Your task to perform on an android device: Install the Spotify app Image 0: 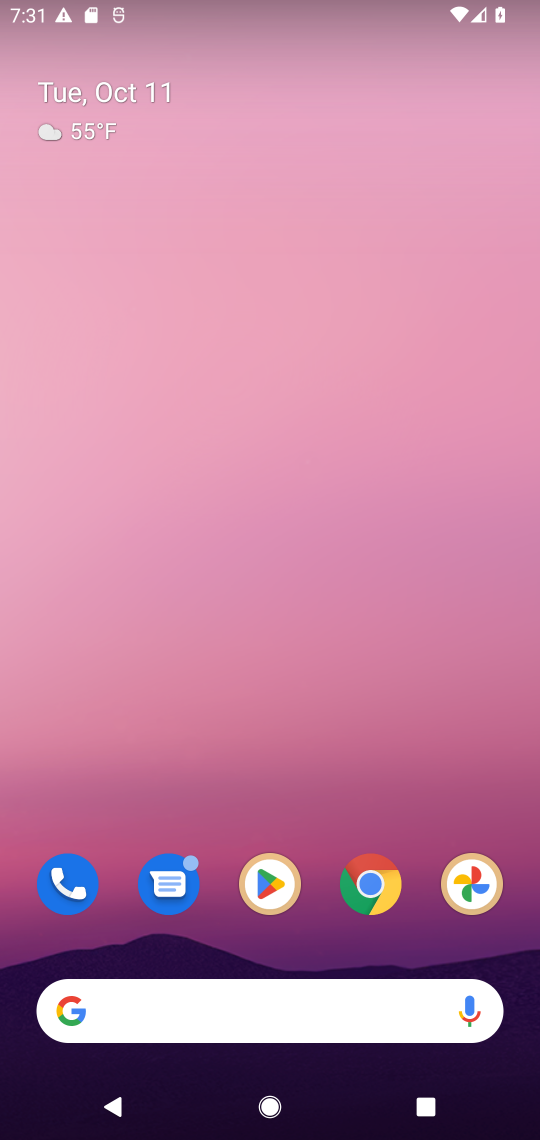
Step 0: drag from (298, 979) to (209, 212)
Your task to perform on an android device: Install the Spotify app Image 1: 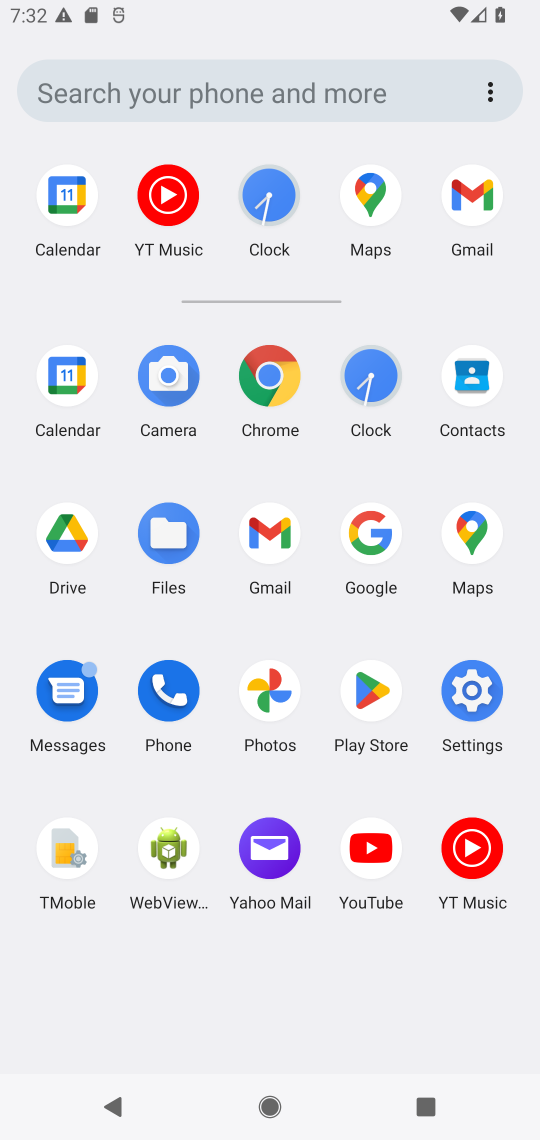
Step 1: click (376, 695)
Your task to perform on an android device: Install the Spotify app Image 2: 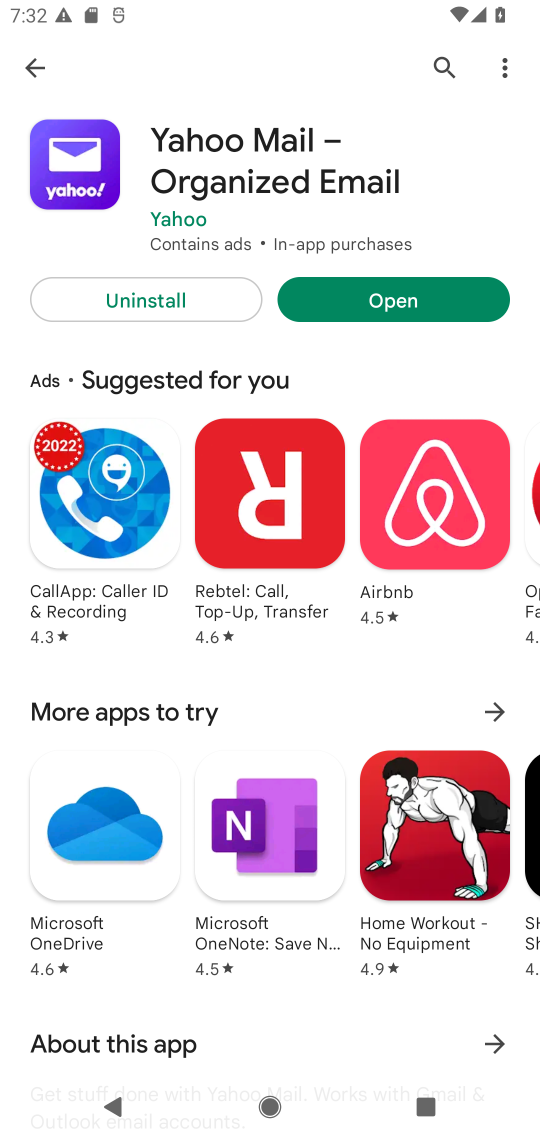
Step 2: click (441, 61)
Your task to perform on an android device: Install the Spotify app Image 3: 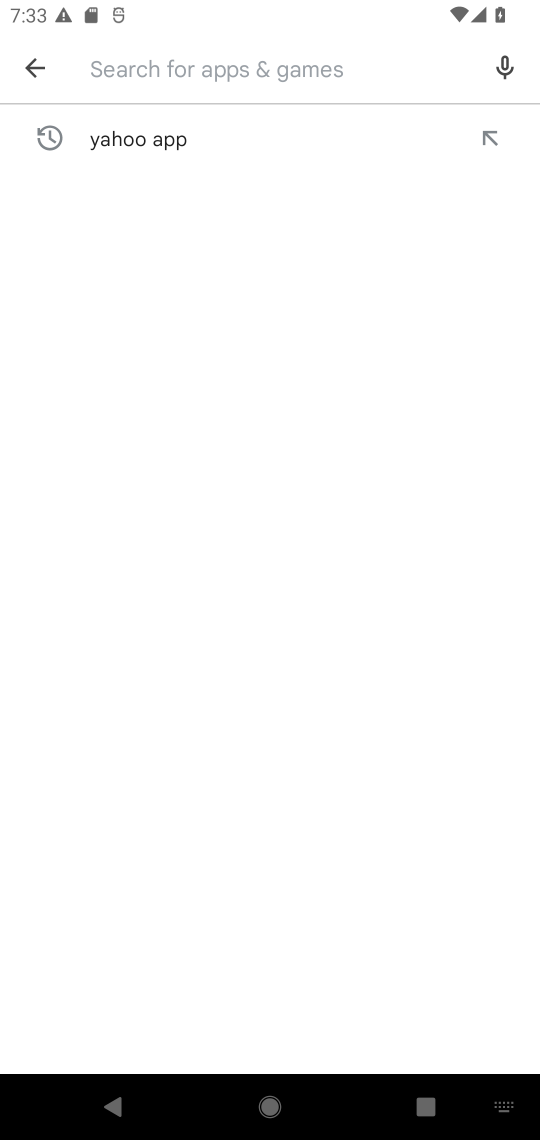
Step 3: type "Spotify app"
Your task to perform on an android device: Install the Spotify app Image 4: 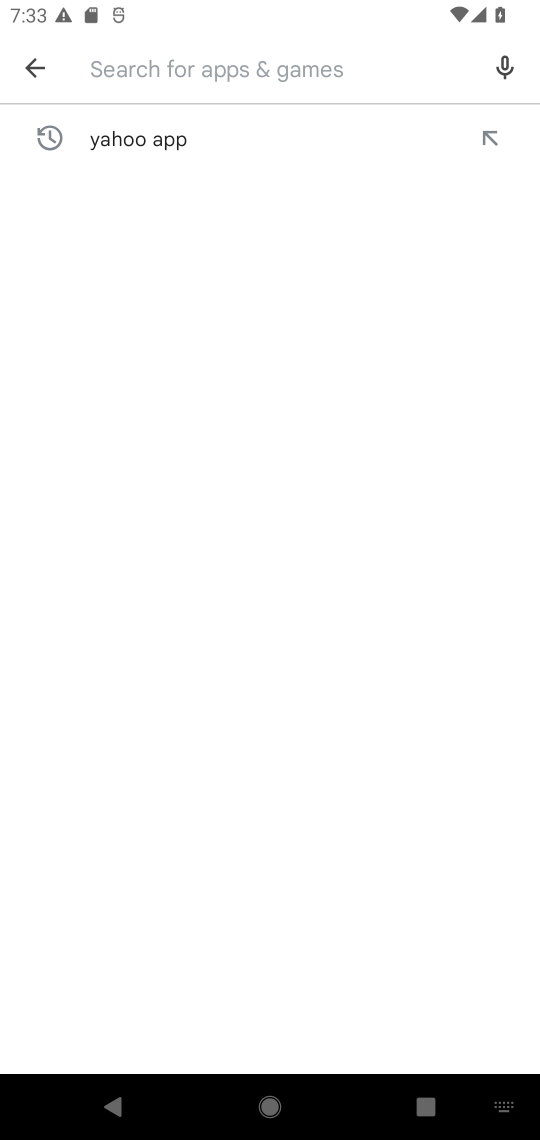
Step 4: drag from (386, 1133) to (8, 1115)
Your task to perform on an android device: Install the Spotify app Image 5: 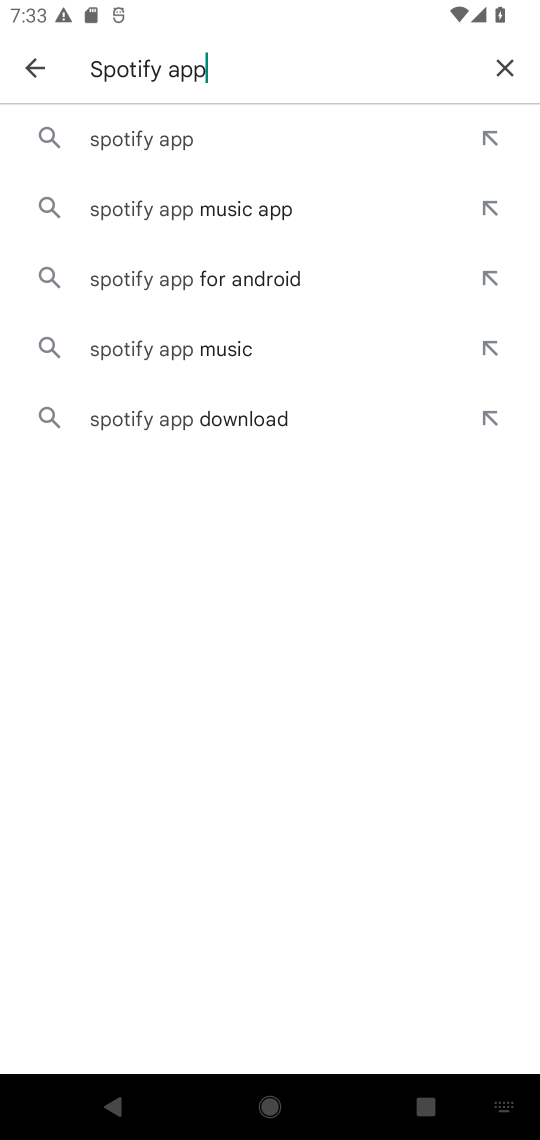
Step 5: click (130, 146)
Your task to perform on an android device: Install the Spotify app Image 6: 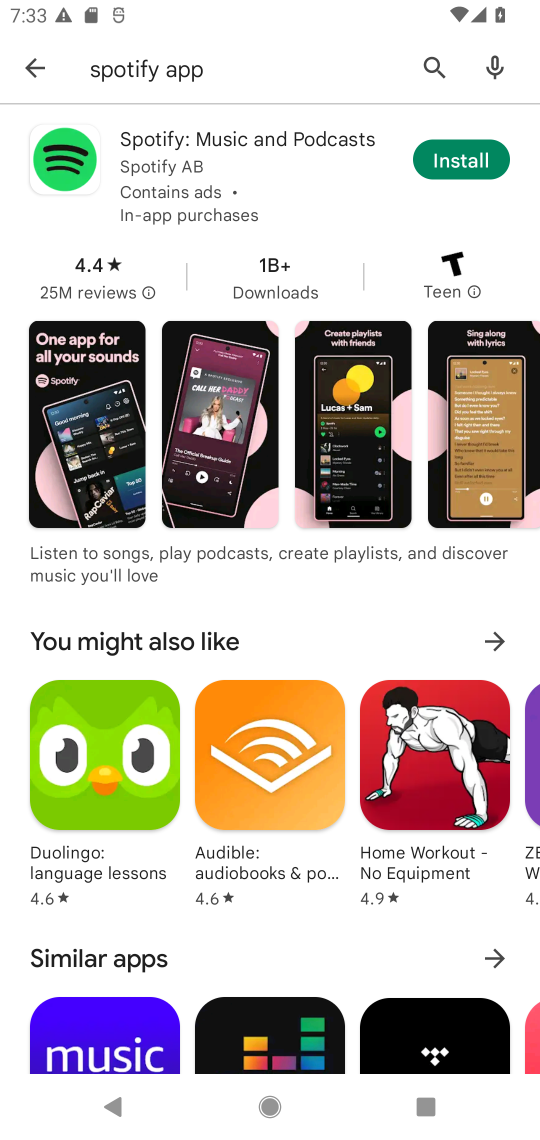
Step 6: click (443, 155)
Your task to perform on an android device: Install the Spotify app Image 7: 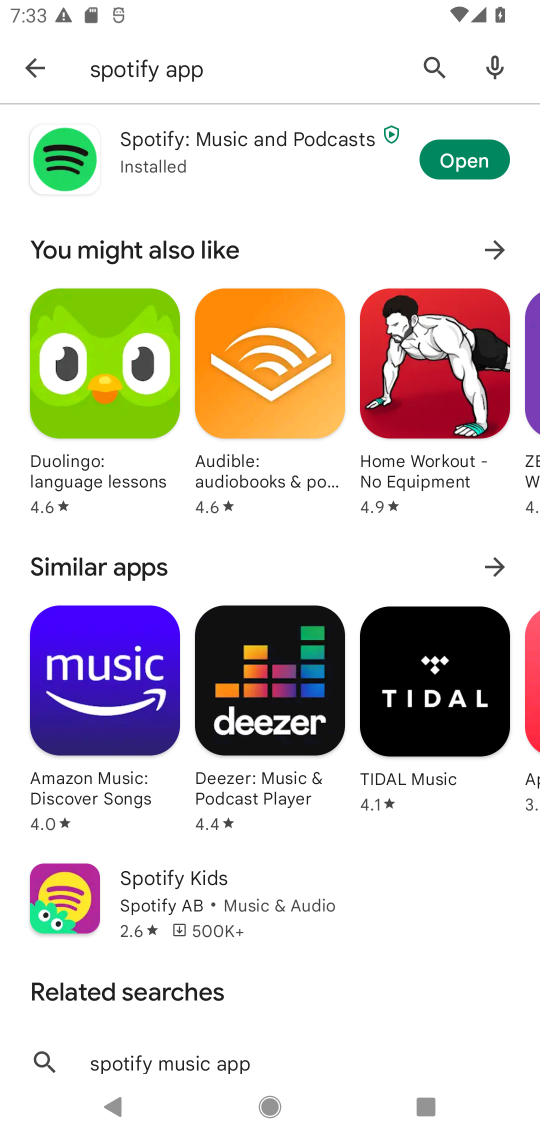
Step 7: task complete